Your task to perform on an android device: Go to Yahoo.com Image 0: 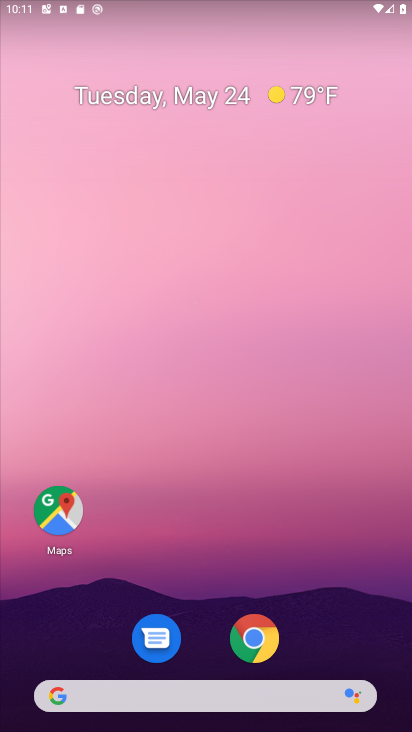
Step 0: click (163, 690)
Your task to perform on an android device: Go to Yahoo.com Image 1: 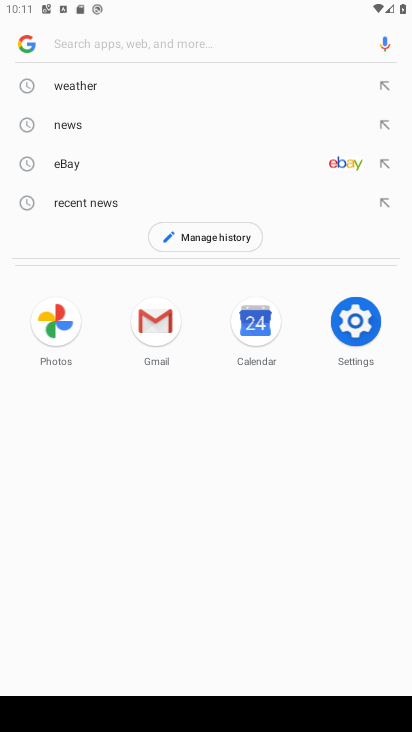
Step 1: type "yahoo.com"
Your task to perform on an android device: Go to Yahoo.com Image 2: 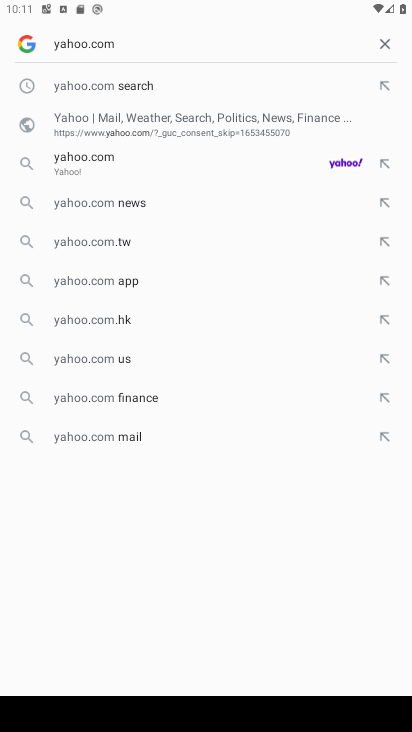
Step 2: click (139, 121)
Your task to perform on an android device: Go to Yahoo.com Image 3: 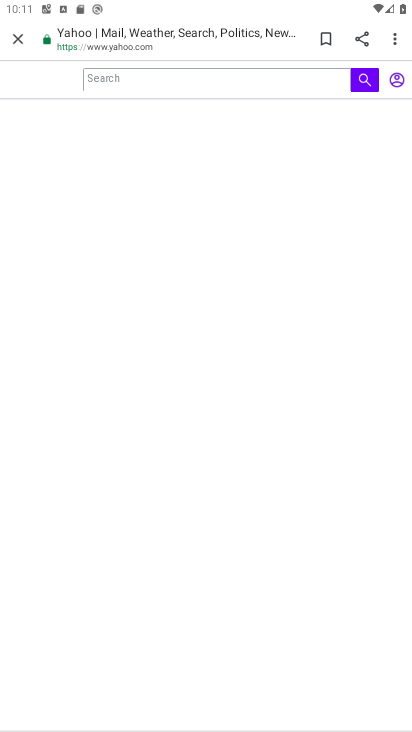
Step 3: task complete